Your task to perform on an android device: delete location history Image 0: 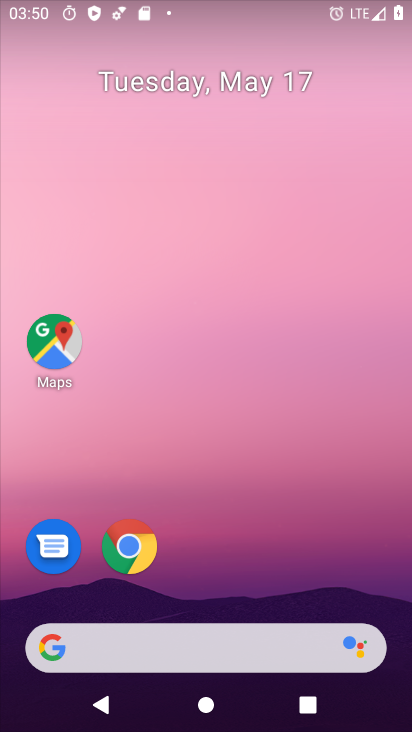
Step 0: drag from (312, 516) to (347, 2)
Your task to perform on an android device: delete location history Image 1: 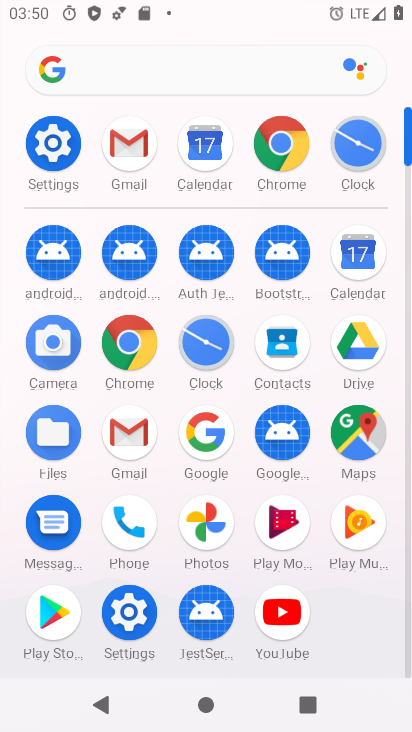
Step 1: click (378, 428)
Your task to perform on an android device: delete location history Image 2: 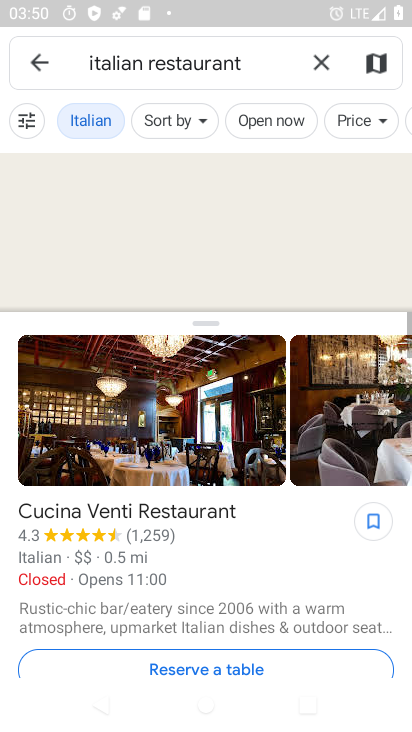
Step 2: click (36, 62)
Your task to perform on an android device: delete location history Image 3: 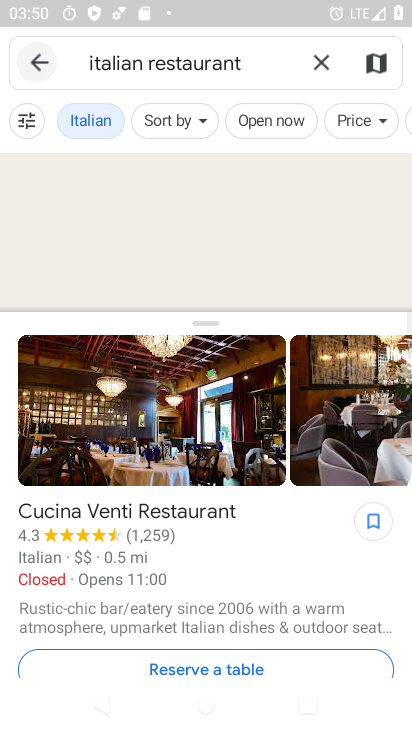
Step 3: click (36, 62)
Your task to perform on an android device: delete location history Image 4: 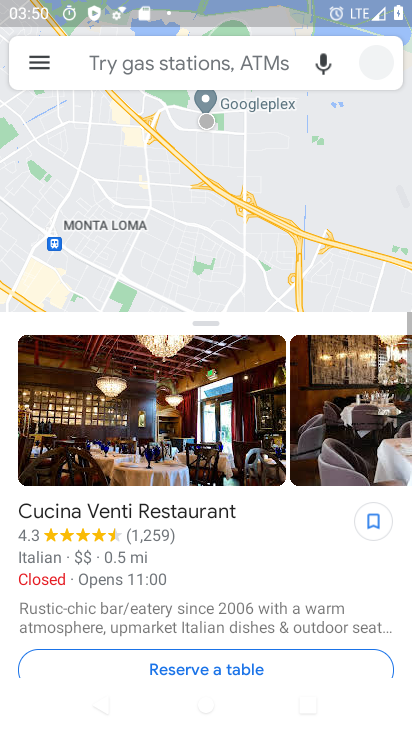
Step 4: click (36, 62)
Your task to perform on an android device: delete location history Image 5: 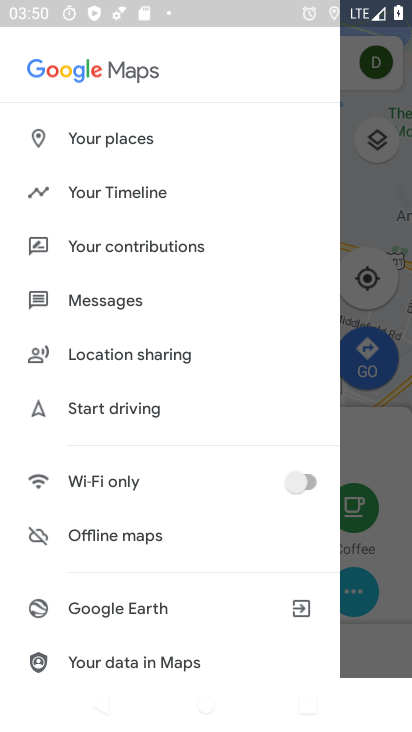
Step 5: click (105, 185)
Your task to perform on an android device: delete location history Image 6: 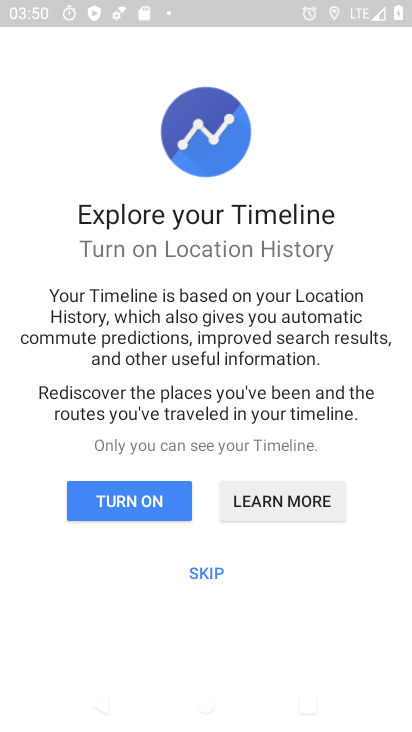
Step 6: click (221, 570)
Your task to perform on an android device: delete location history Image 7: 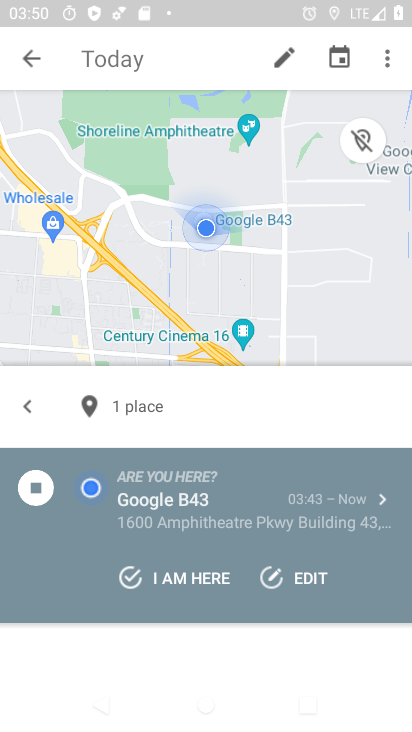
Step 7: click (384, 50)
Your task to perform on an android device: delete location history Image 8: 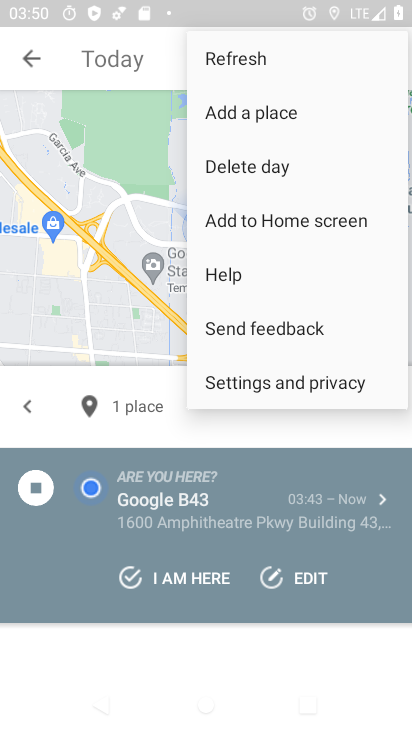
Step 8: click (353, 378)
Your task to perform on an android device: delete location history Image 9: 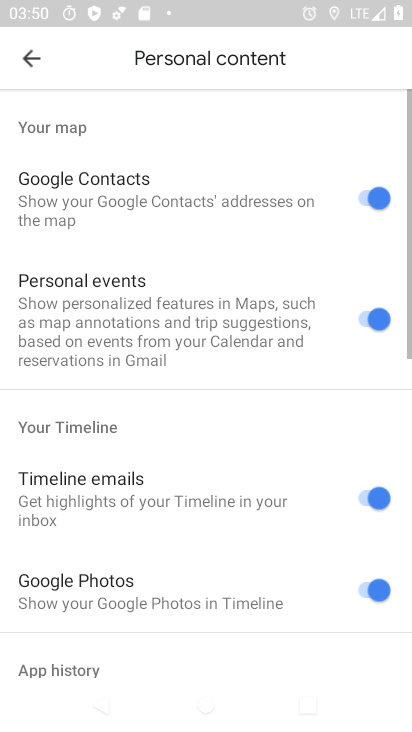
Step 9: drag from (170, 566) to (132, 149)
Your task to perform on an android device: delete location history Image 10: 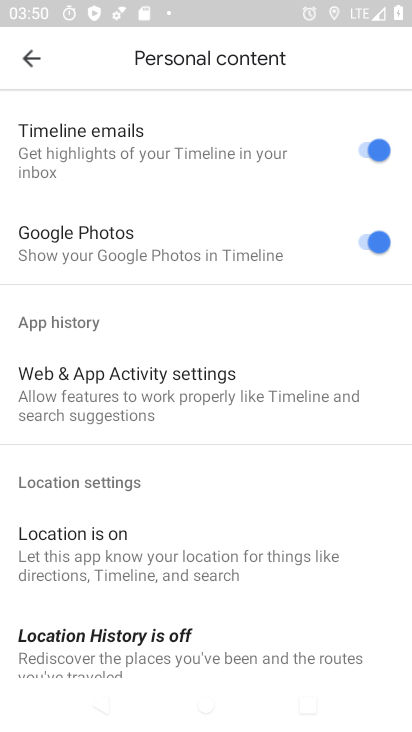
Step 10: drag from (195, 604) to (200, 272)
Your task to perform on an android device: delete location history Image 11: 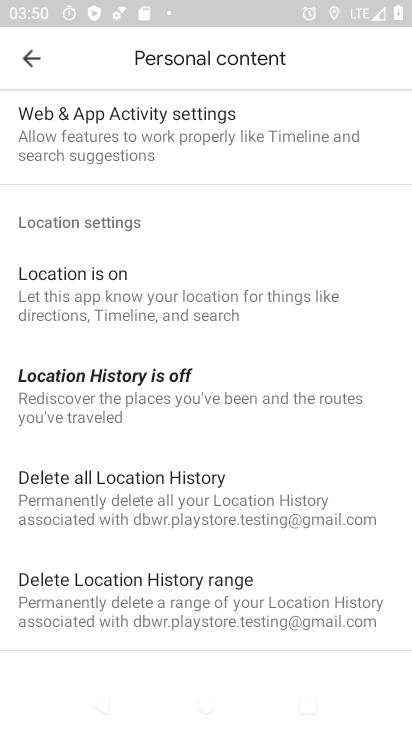
Step 11: click (156, 488)
Your task to perform on an android device: delete location history Image 12: 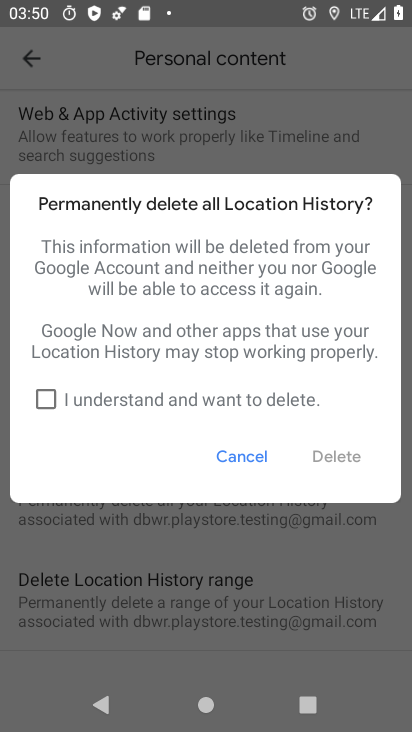
Step 12: click (189, 390)
Your task to perform on an android device: delete location history Image 13: 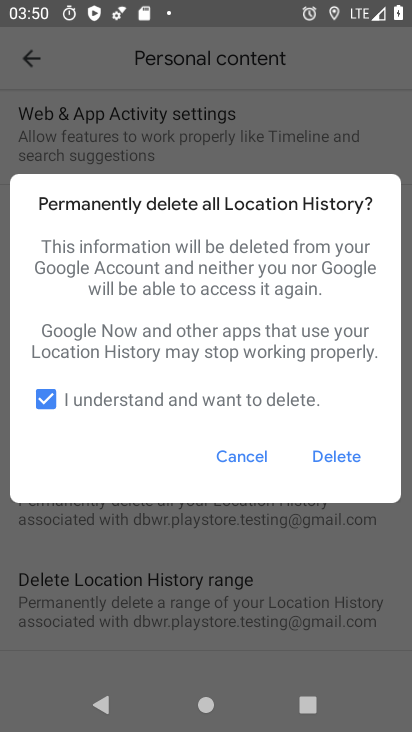
Step 13: click (345, 455)
Your task to perform on an android device: delete location history Image 14: 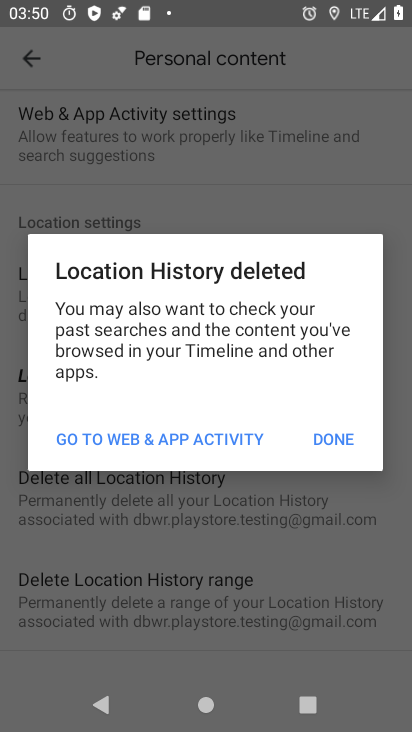
Step 14: task complete